Your task to perform on an android device: Search for vegetarian restaurants on Maps Image 0: 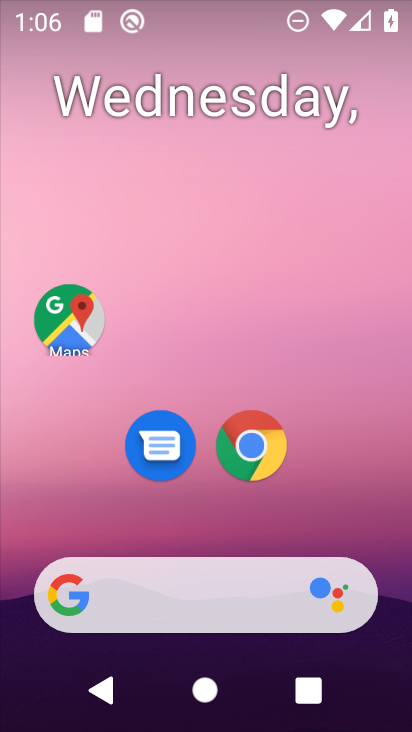
Step 0: drag from (392, 612) to (310, 49)
Your task to perform on an android device: Search for vegetarian restaurants on Maps Image 1: 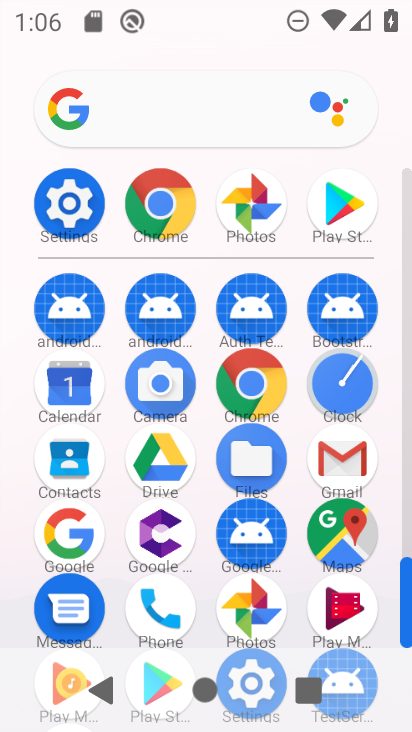
Step 1: click (349, 554)
Your task to perform on an android device: Search for vegetarian restaurants on Maps Image 2: 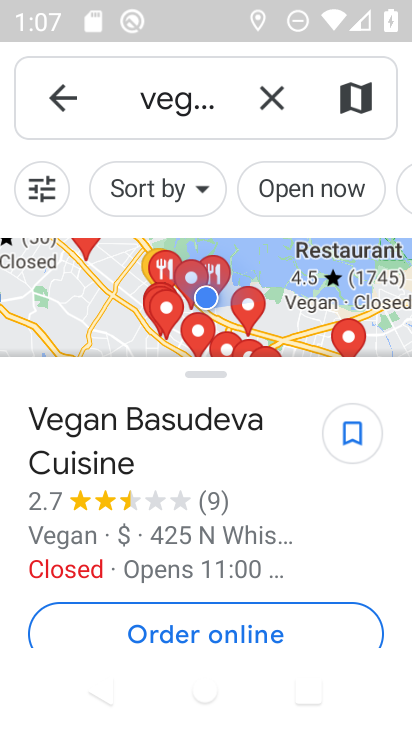
Step 2: task complete